Your task to perform on an android device: Open the calendar app, open the side menu, and click the "Day" option Image 0: 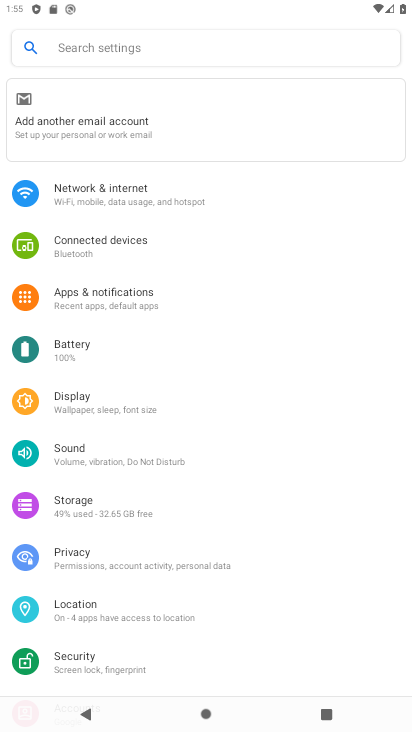
Step 0: press home button
Your task to perform on an android device: Open the calendar app, open the side menu, and click the "Day" option Image 1: 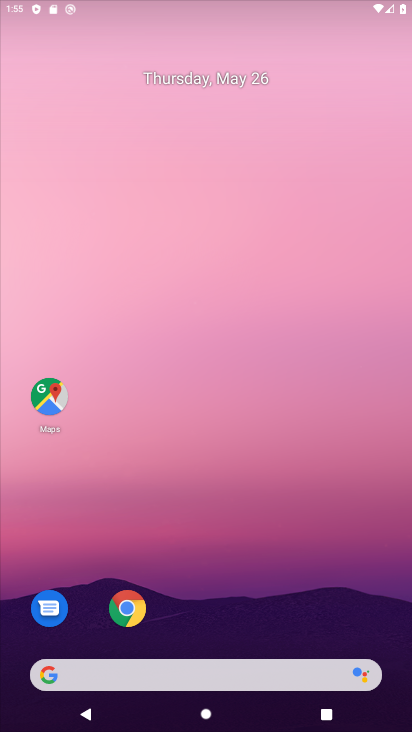
Step 1: drag from (313, 539) to (357, 6)
Your task to perform on an android device: Open the calendar app, open the side menu, and click the "Day" option Image 2: 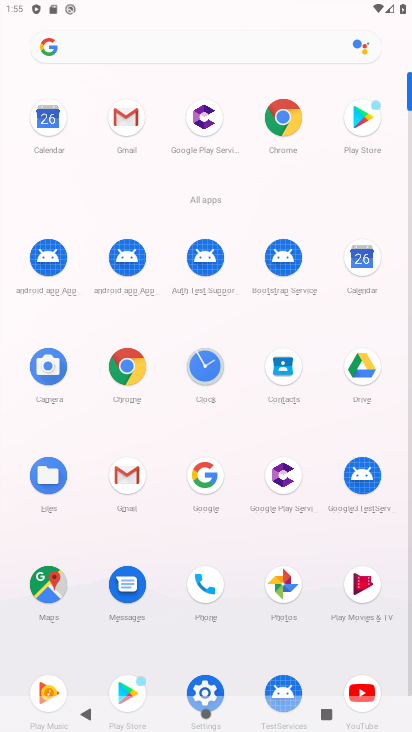
Step 2: click (360, 262)
Your task to perform on an android device: Open the calendar app, open the side menu, and click the "Day" option Image 3: 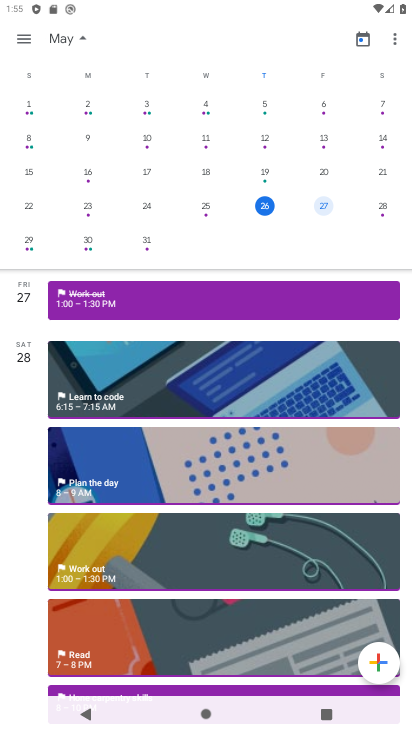
Step 3: click (14, 51)
Your task to perform on an android device: Open the calendar app, open the side menu, and click the "Day" option Image 4: 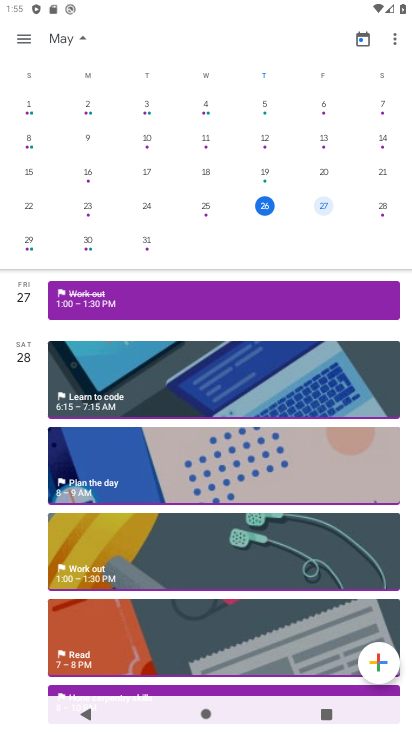
Step 4: click (18, 45)
Your task to perform on an android device: Open the calendar app, open the side menu, and click the "Day" option Image 5: 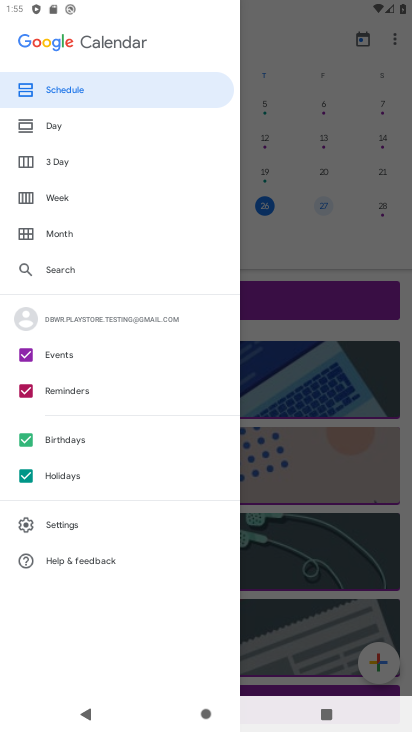
Step 5: click (47, 125)
Your task to perform on an android device: Open the calendar app, open the side menu, and click the "Day" option Image 6: 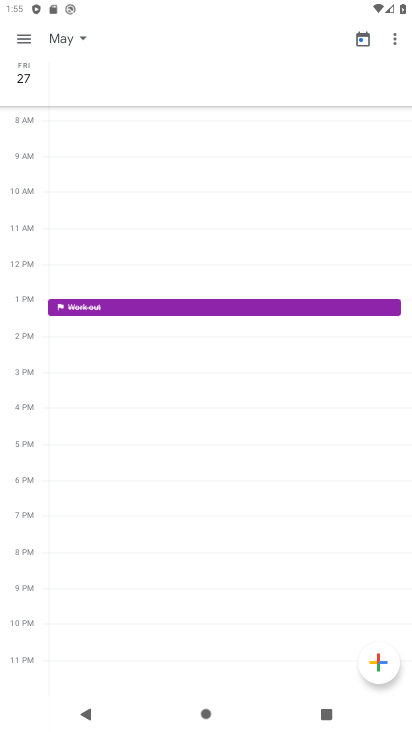
Step 6: task complete